Your task to perform on an android device: Search for pizza restaurants on Maps Image 0: 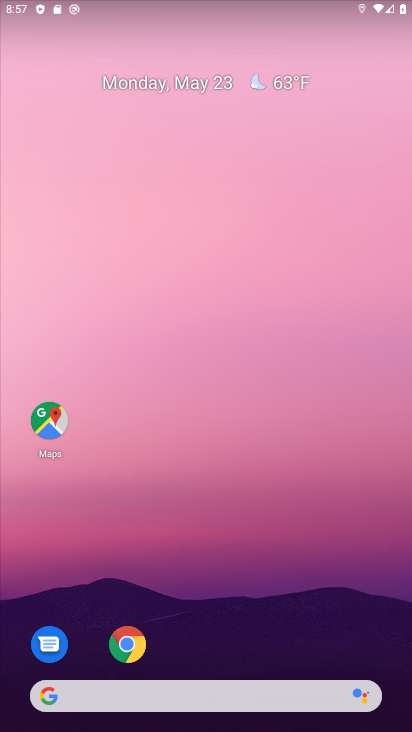
Step 0: press home button
Your task to perform on an android device: Search for pizza restaurants on Maps Image 1: 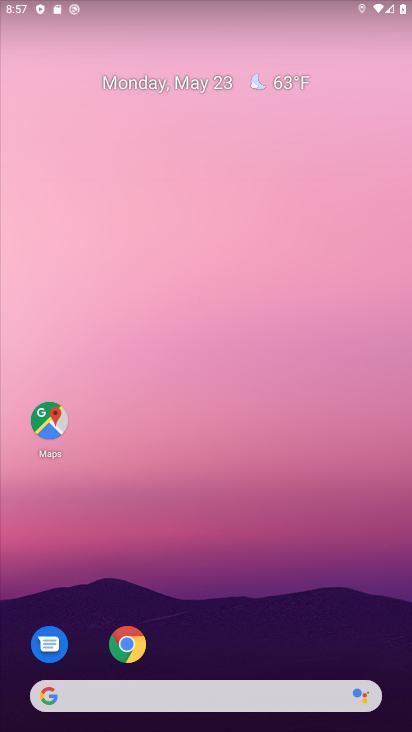
Step 1: click (50, 415)
Your task to perform on an android device: Search for pizza restaurants on Maps Image 2: 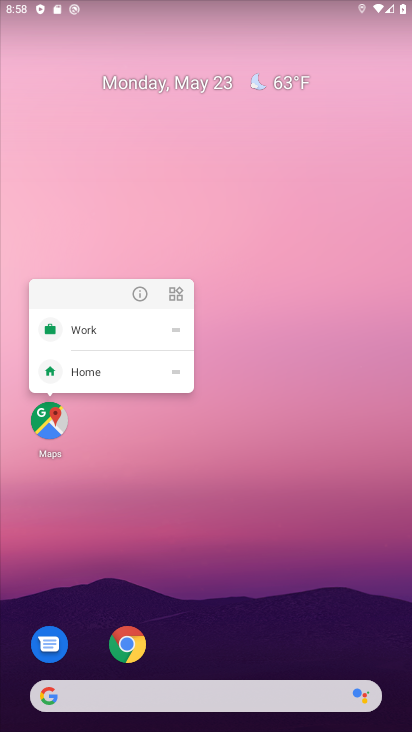
Step 2: click (50, 414)
Your task to perform on an android device: Search for pizza restaurants on Maps Image 3: 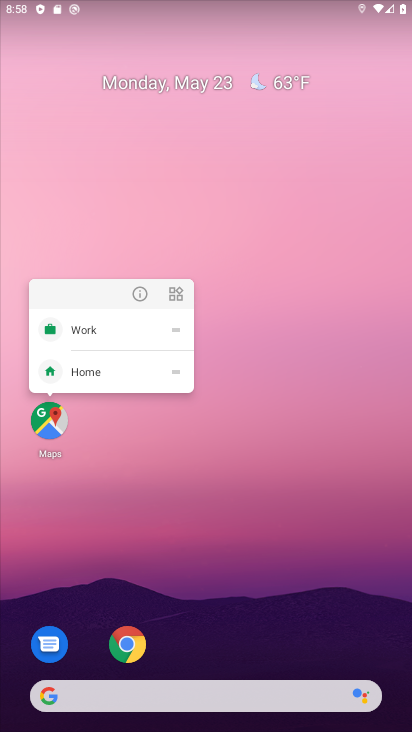
Step 3: click (48, 414)
Your task to perform on an android device: Search for pizza restaurants on Maps Image 4: 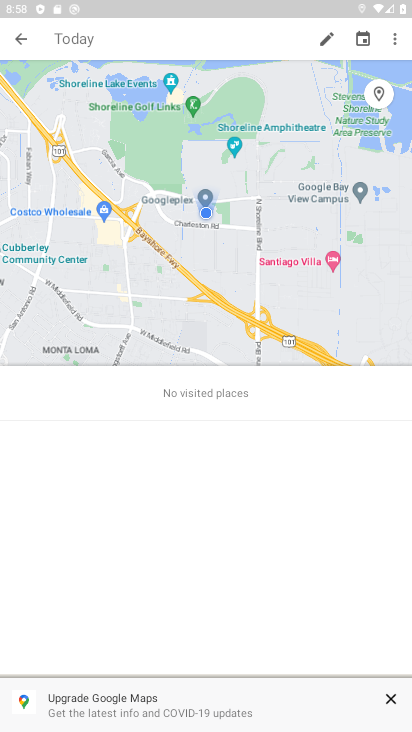
Step 4: click (17, 33)
Your task to perform on an android device: Search for pizza restaurants on Maps Image 5: 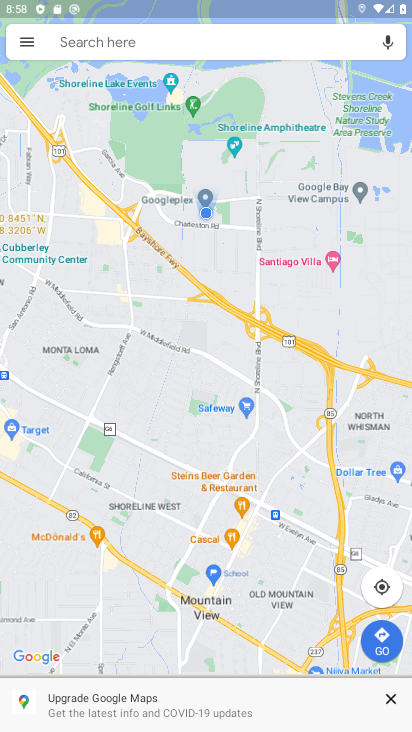
Step 5: click (111, 37)
Your task to perform on an android device: Search for pizza restaurants on Maps Image 6: 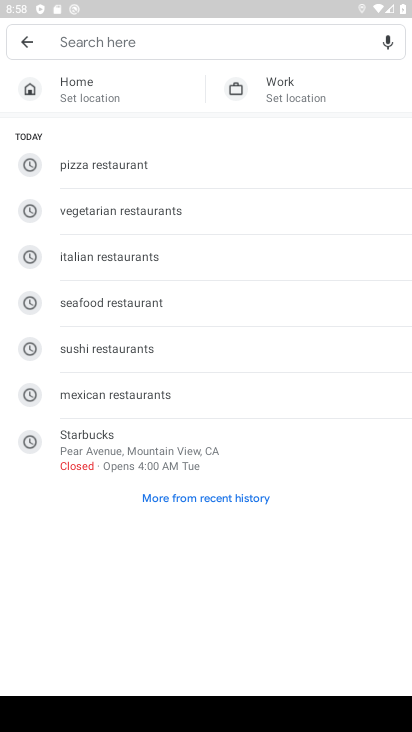
Step 6: click (93, 161)
Your task to perform on an android device: Search for pizza restaurants on Maps Image 7: 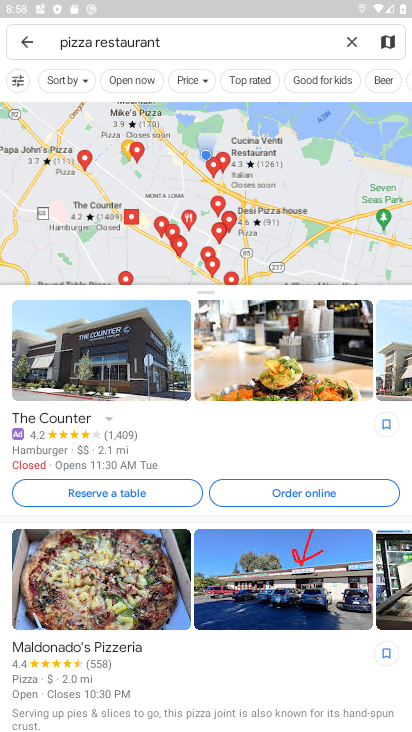
Step 7: task complete